Your task to perform on an android device: turn on sleep mode Image 0: 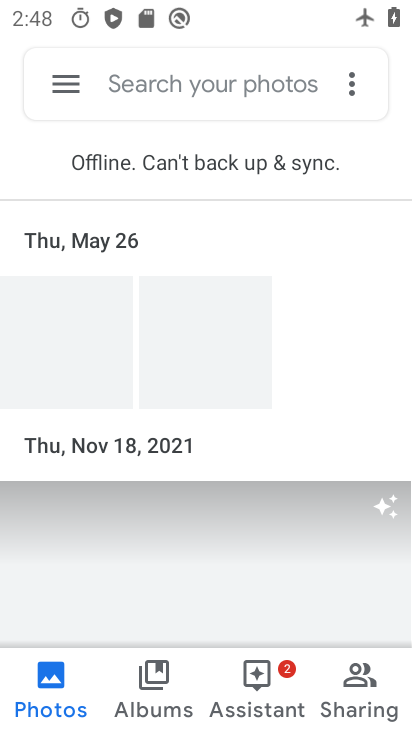
Step 0: press home button
Your task to perform on an android device: turn on sleep mode Image 1: 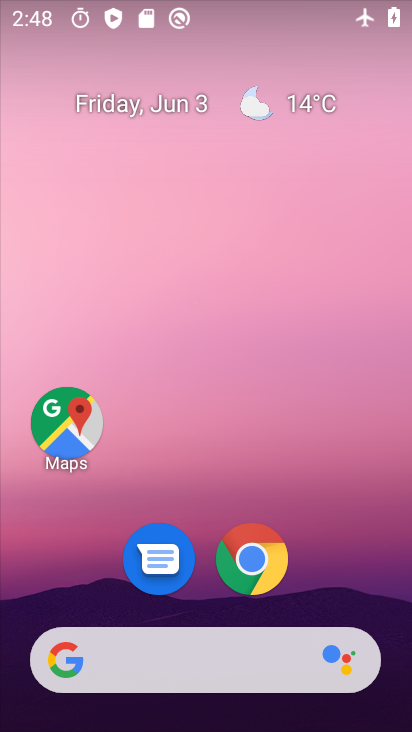
Step 1: drag from (202, 620) to (126, 11)
Your task to perform on an android device: turn on sleep mode Image 2: 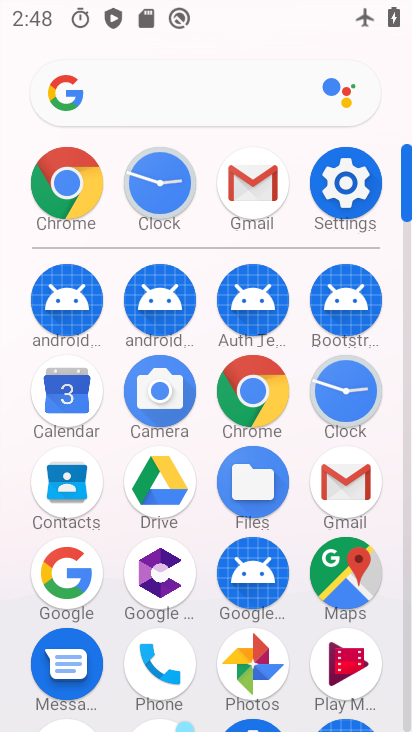
Step 2: click (355, 192)
Your task to perform on an android device: turn on sleep mode Image 3: 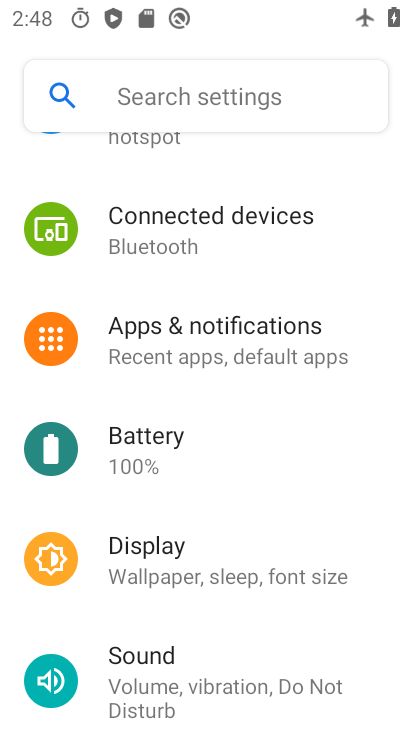
Step 3: drag from (281, 588) to (245, 71)
Your task to perform on an android device: turn on sleep mode Image 4: 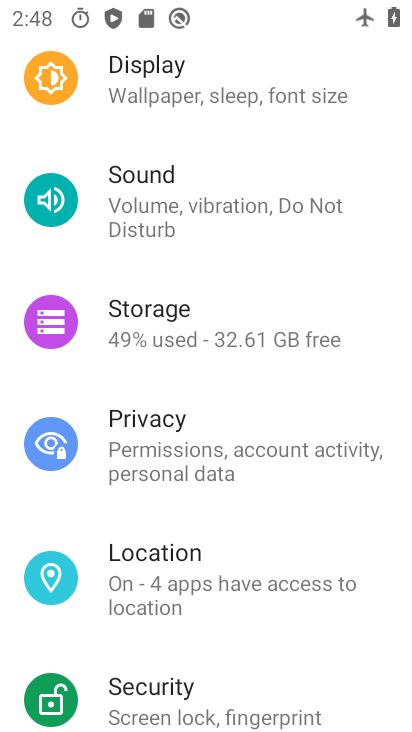
Step 4: drag from (131, 182) to (136, 307)
Your task to perform on an android device: turn on sleep mode Image 5: 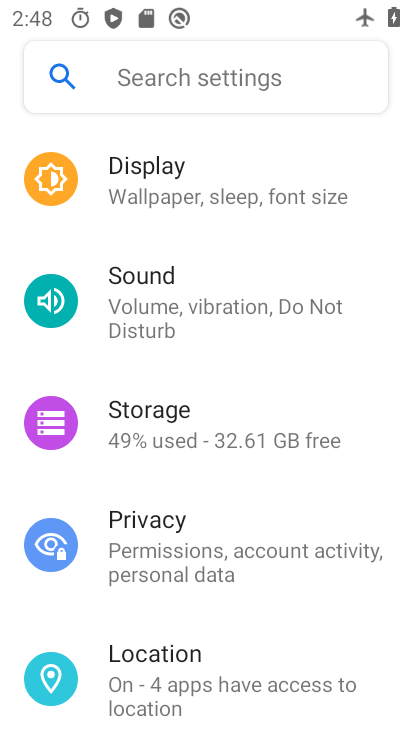
Step 5: click (149, 158)
Your task to perform on an android device: turn on sleep mode Image 6: 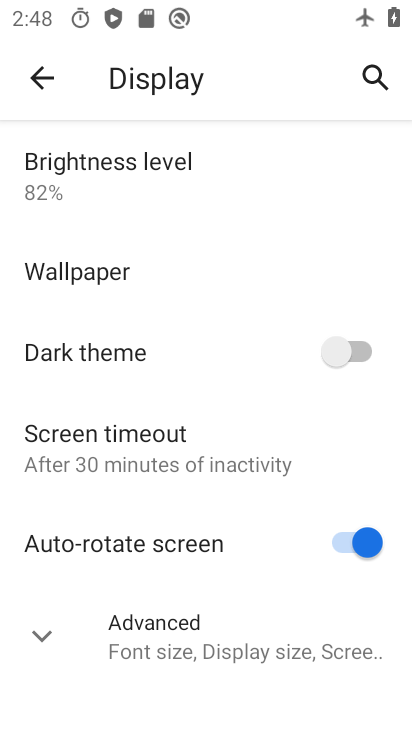
Step 6: task complete